Your task to perform on an android device: toggle pop-ups in chrome Image 0: 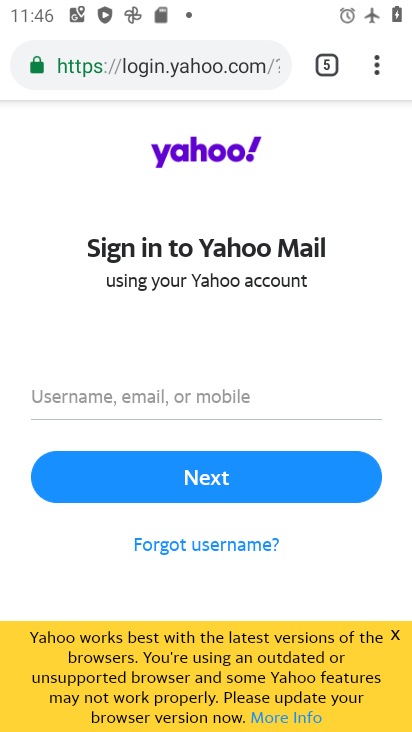
Step 0: drag from (374, 62) to (206, 640)
Your task to perform on an android device: toggle pop-ups in chrome Image 1: 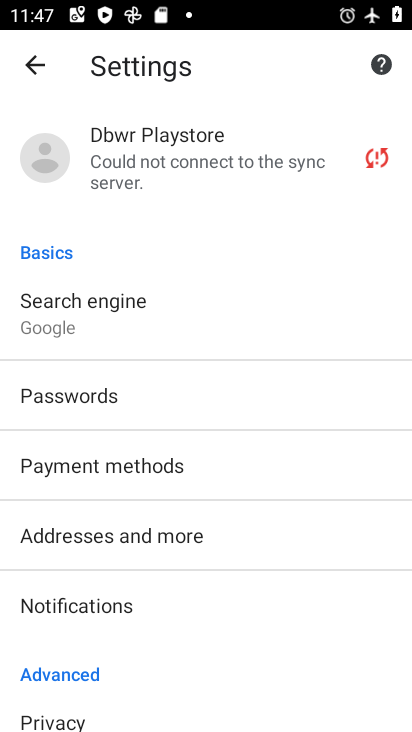
Step 1: drag from (203, 651) to (152, 101)
Your task to perform on an android device: toggle pop-ups in chrome Image 2: 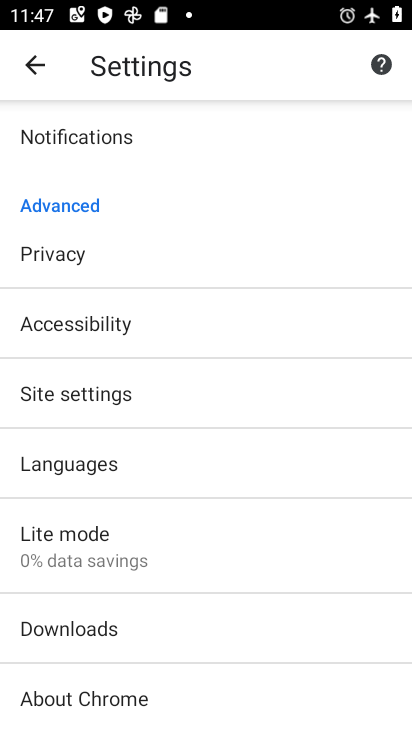
Step 2: click (115, 388)
Your task to perform on an android device: toggle pop-ups in chrome Image 3: 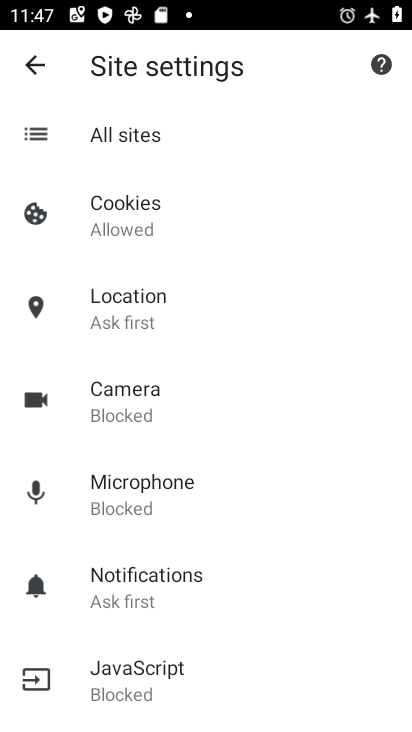
Step 3: drag from (310, 586) to (300, 61)
Your task to perform on an android device: toggle pop-ups in chrome Image 4: 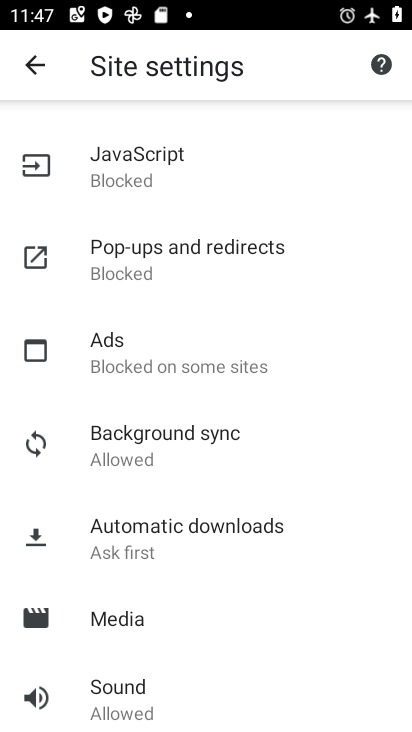
Step 4: click (221, 244)
Your task to perform on an android device: toggle pop-ups in chrome Image 5: 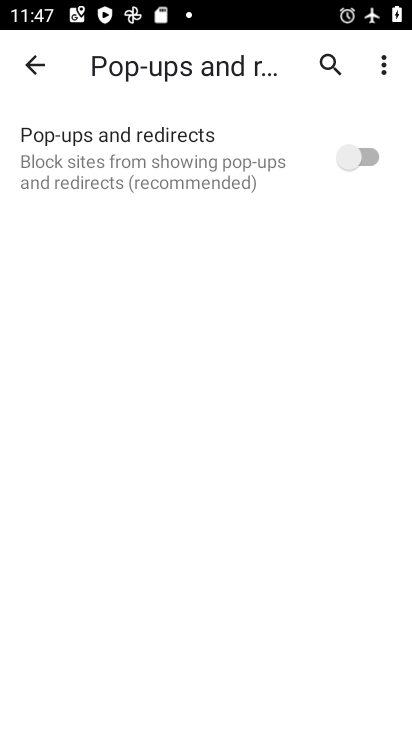
Step 5: click (351, 163)
Your task to perform on an android device: toggle pop-ups in chrome Image 6: 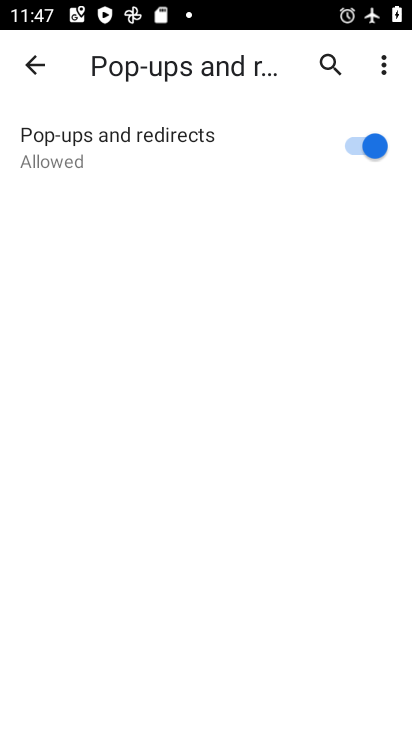
Step 6: task complete